Your task to perform on an android device: When is my next appointment? Image 0: 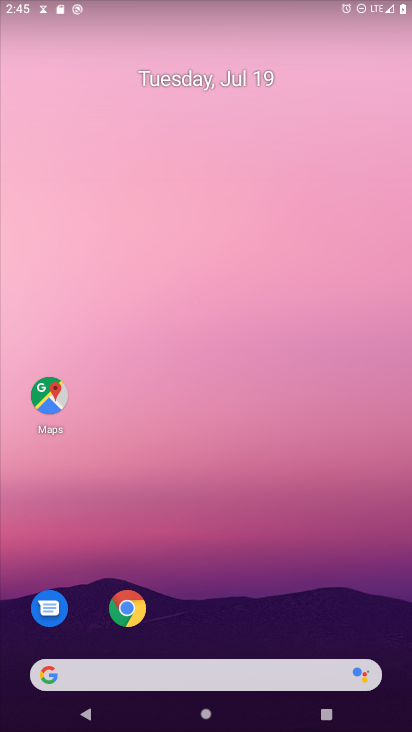
Step 0: drag from (247, 680) to (253, 12)
Your task to perform on an android device: When is my next appointment? Image 1: 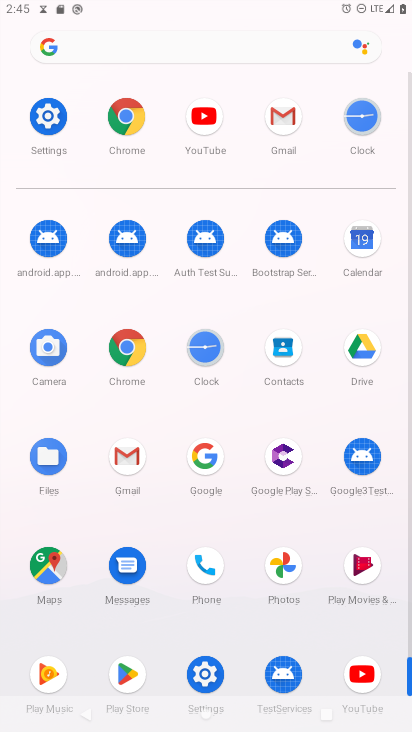
Step 1: click (364, 248)
Your task to perform on an android device: When is my next appointment? Image 2: 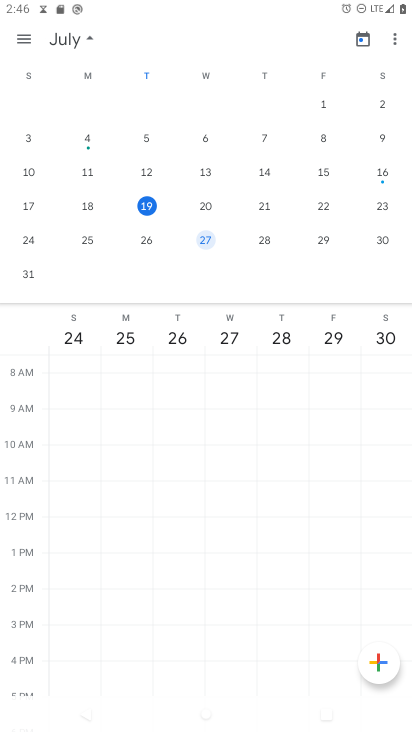
Step 2: click (200, 200)
Your task to perform on an android device: When is my next appointment? Image 3: 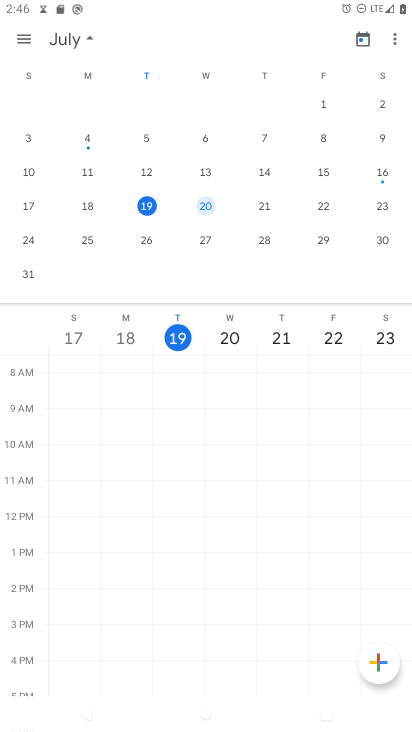
Step 3: task complete